Your task to perform on an android device: change text size in settings app Image 0: 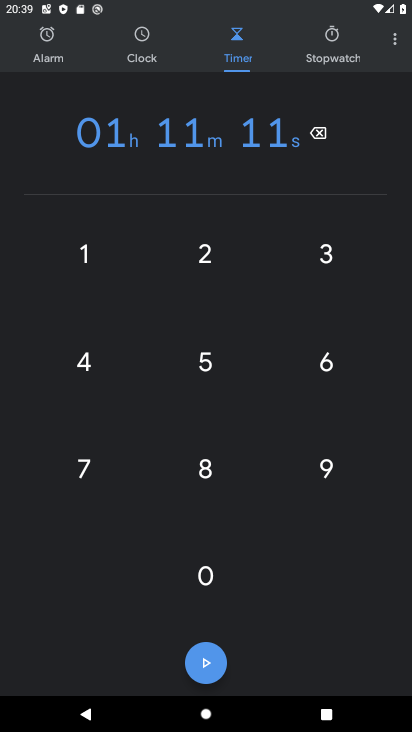
Step 0: press home button
Your task to perform on an android device: change text size in settings app Image 1: 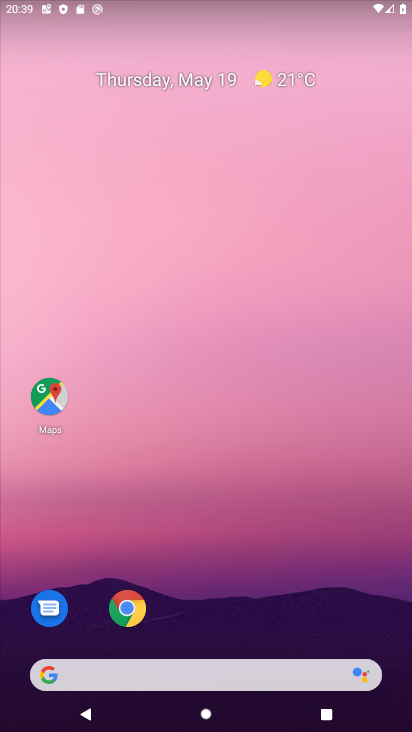
Step 1: drag from (265, 545) to (156, 29)
Your task to perform on an android device: change text size in settings app Image 2: 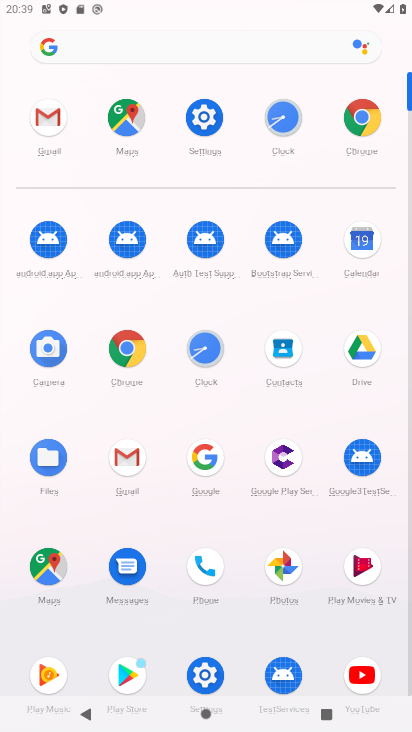
Step 2: click (205, 116)
Your task to perform on an android device: change text size in settings app Image 3: 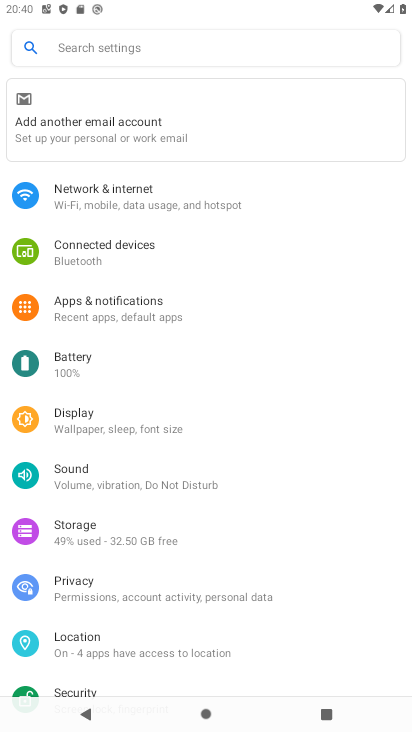
Step 3: click (72, 414)
Your task to perform on an android device: change text size in settings app Image 4: 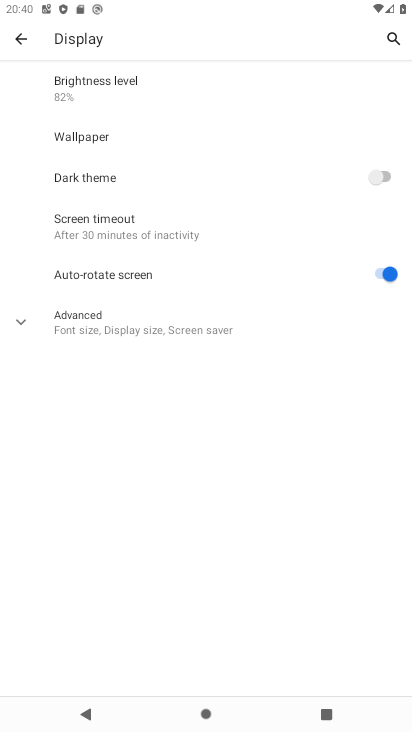
Step 4: click (85, 309)
Your task to perform on an android device: change text size in settings app Image 5: 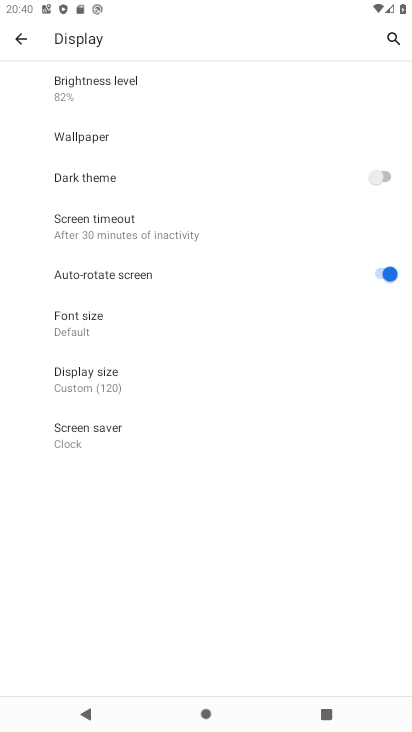
Step 5: click (74, 316)
Your task to perform on an android device: change text size in settings app Image 6: 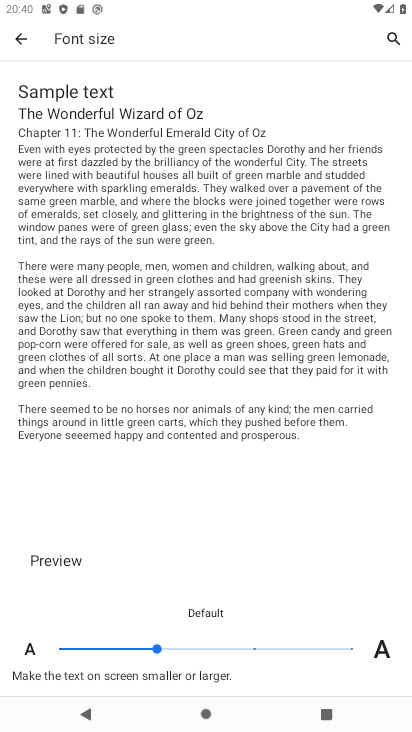
Step 6: click (219, 642)
Your task to perform on an android device: change text size in settings app Image 7: 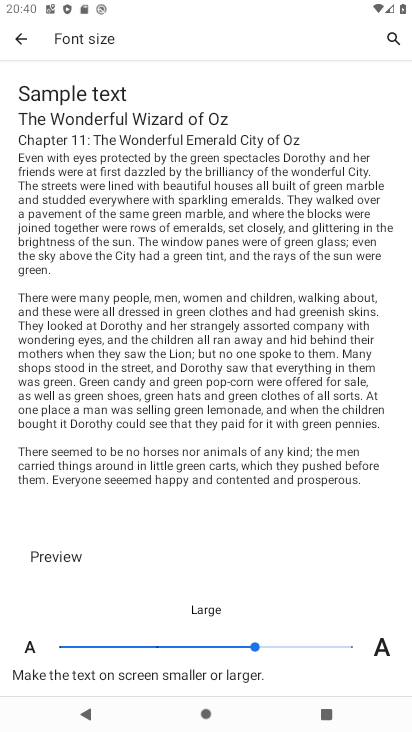
Step 7: task complete